Your task to perform on an android device: turn off priority inbox in the gmail app Image 0: 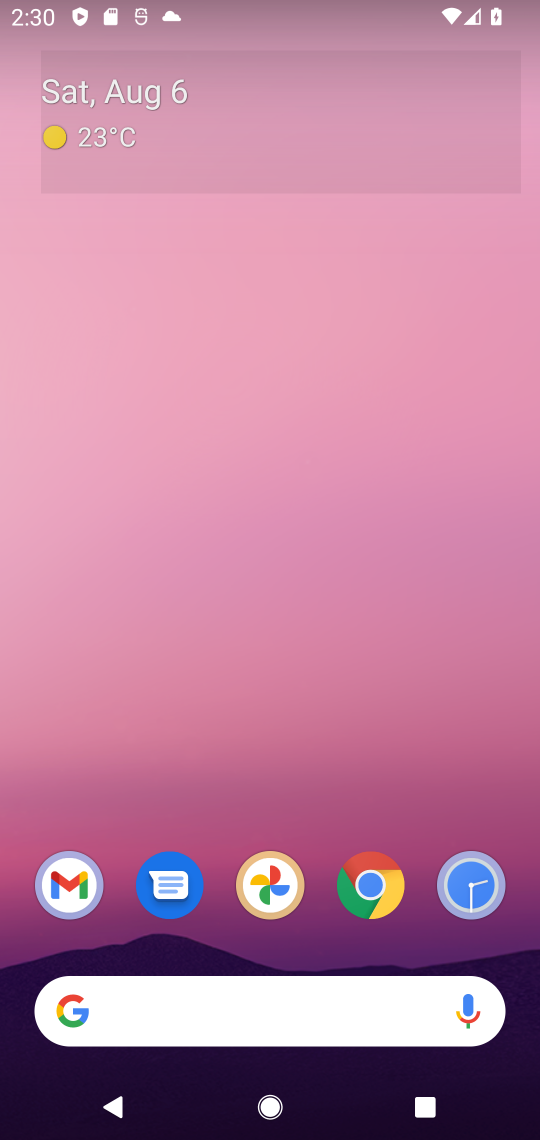
Step 0: drag from (486, 971) to (201, 3)
Your task to perform on an android device: turn off priority inbox in the gmail app Image 1: 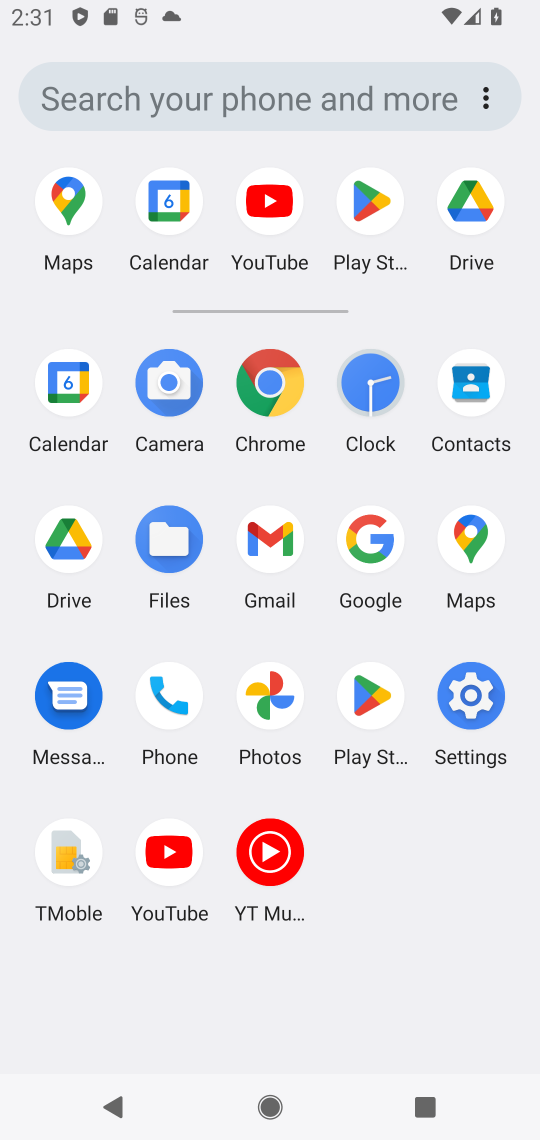
Step 1: click (266, 569)
Your task to perform on an android device: turn off priority inbox in the gmail app Image 2: 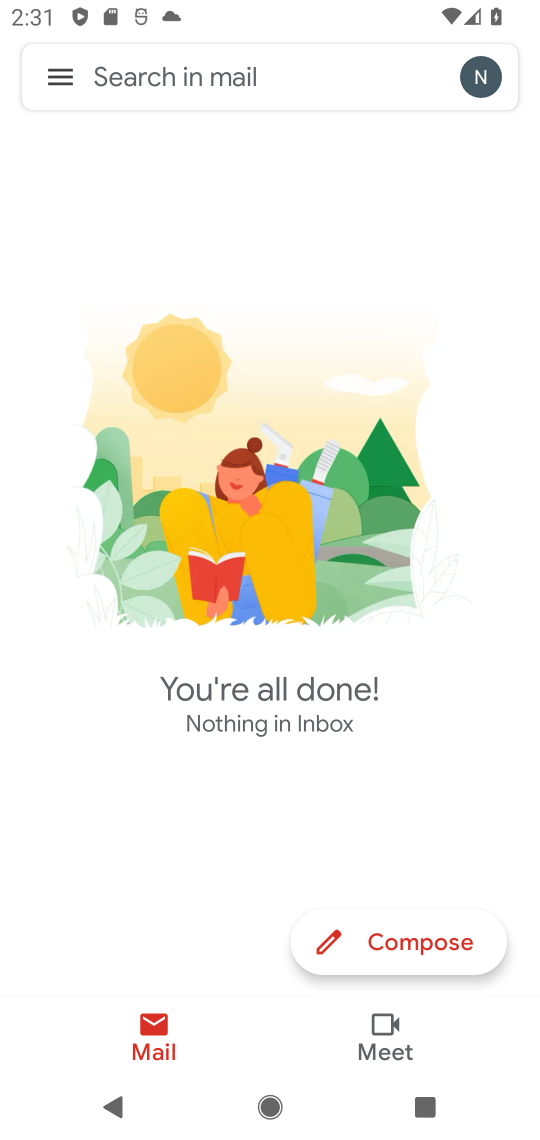
Step 2: click (49, 78)
Your task to perform on an android device: turn off priority inbox in the gmail app Image 3: 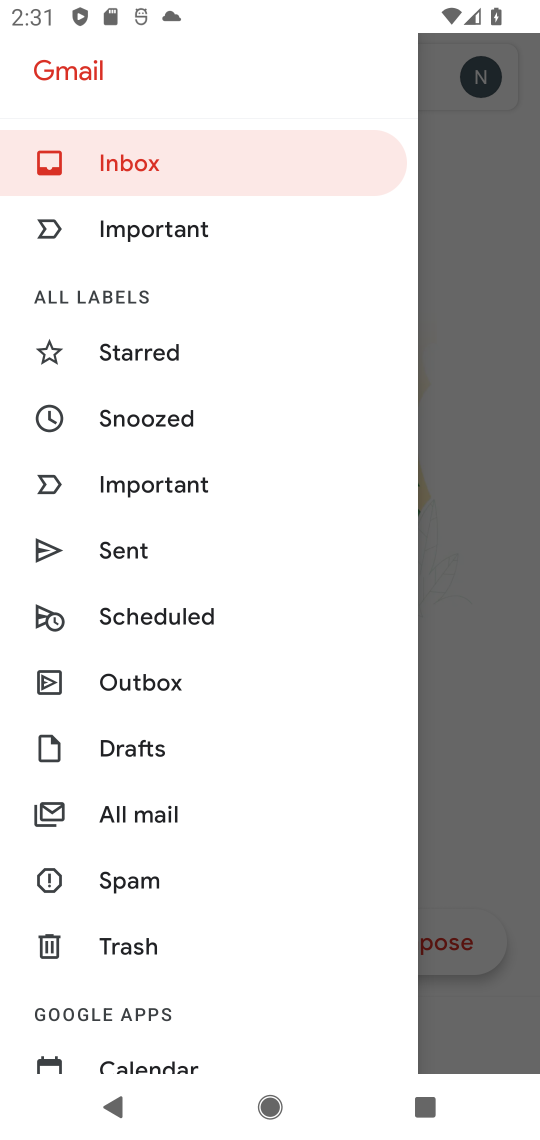
Step 3: drag from (58, 1011) to (202, 96)
Your task to perform on an android device: turn off priority inbox in the gmail app Image 4: 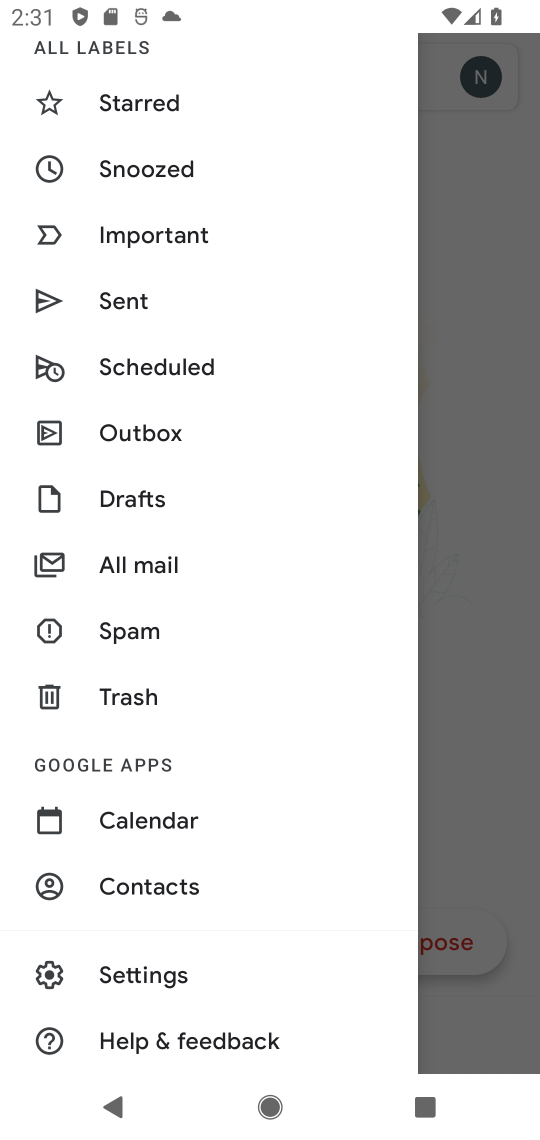
Step 4: click (149, 972)
Your task to perform on an android device: turn off priority inbox in the gmail app Image 5: 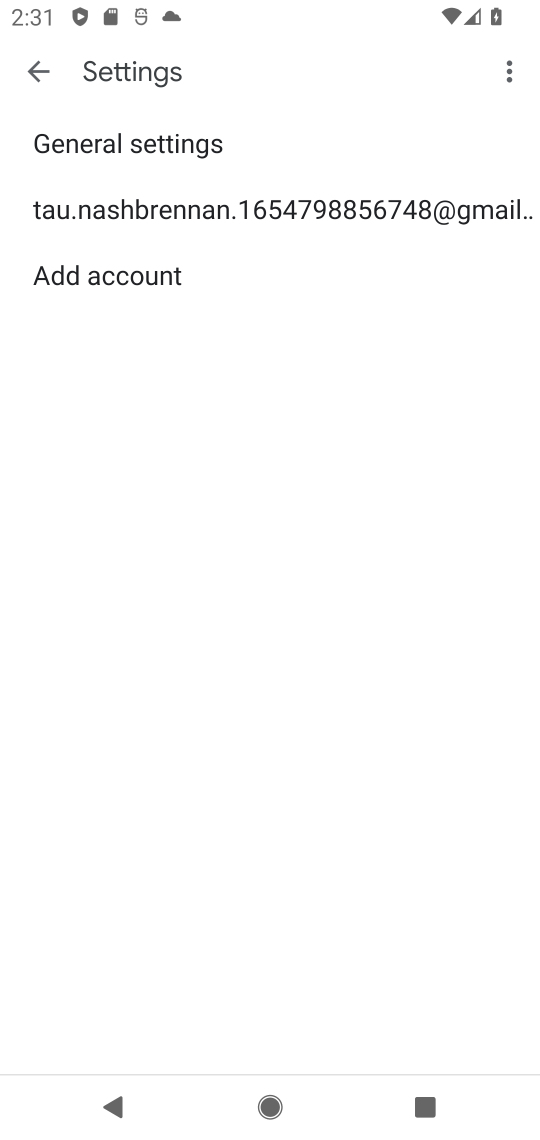
Step 5: click (153, 210)
Your task to perform on an android device: turn off priority inbox in the gmail app Image 6: 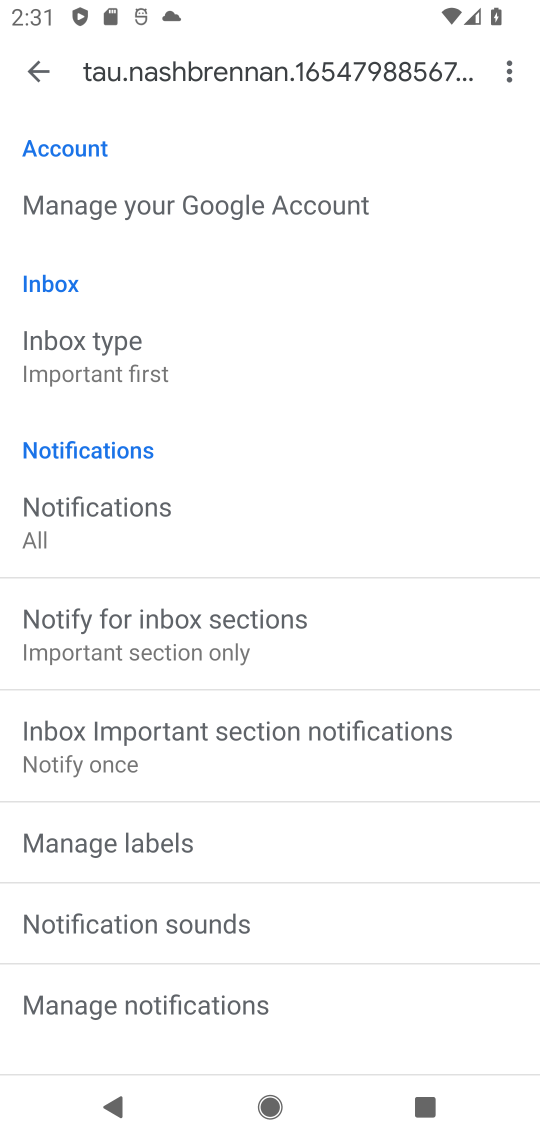
Step 6: click (171, 358)
Your task to perform on an android device: turn off priority inbox in the gmail app Image 7: 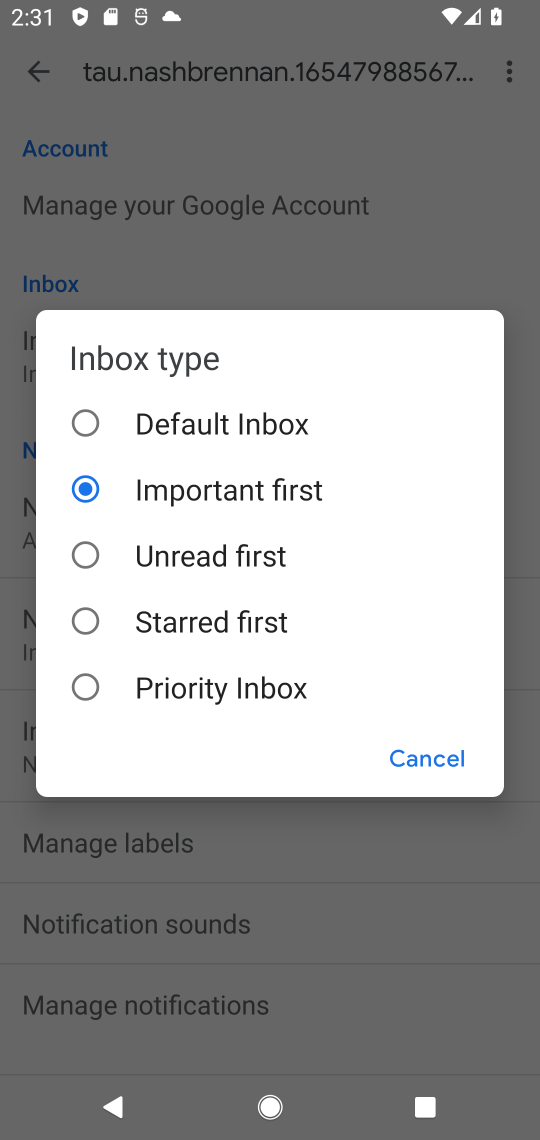
Step 7: click (214, 426)
Your task to perform on an android device: turn off priority inbox in the gmail app Image 8: 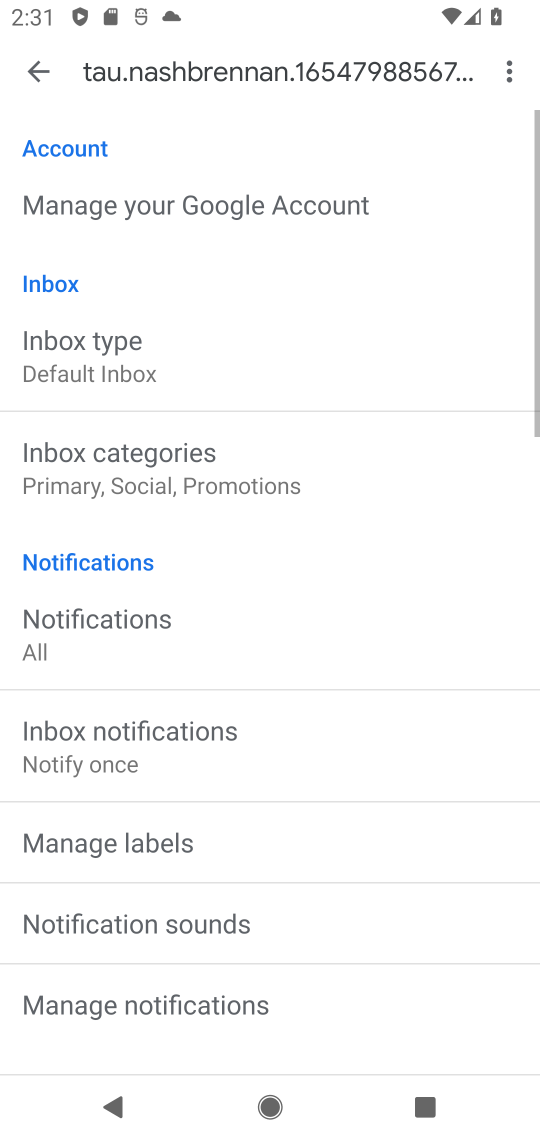
Step 8: task complete